Your task to perform on an android device: turn on location history Image 0: 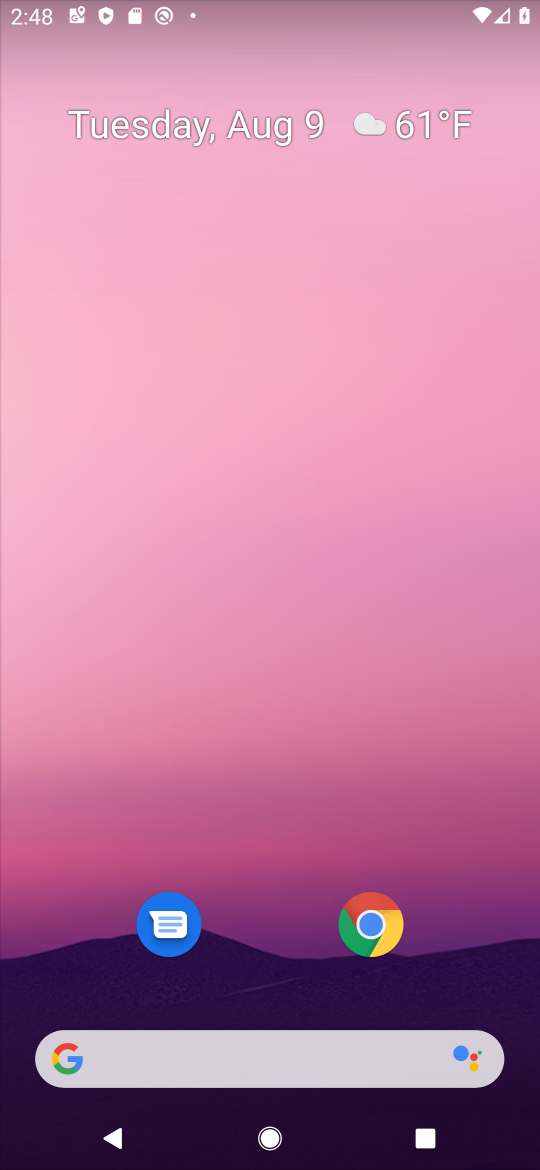
Step 0: drag from (292, 883) to (379, 36)
Your task to perform on an android device: turn on location history Image 1: 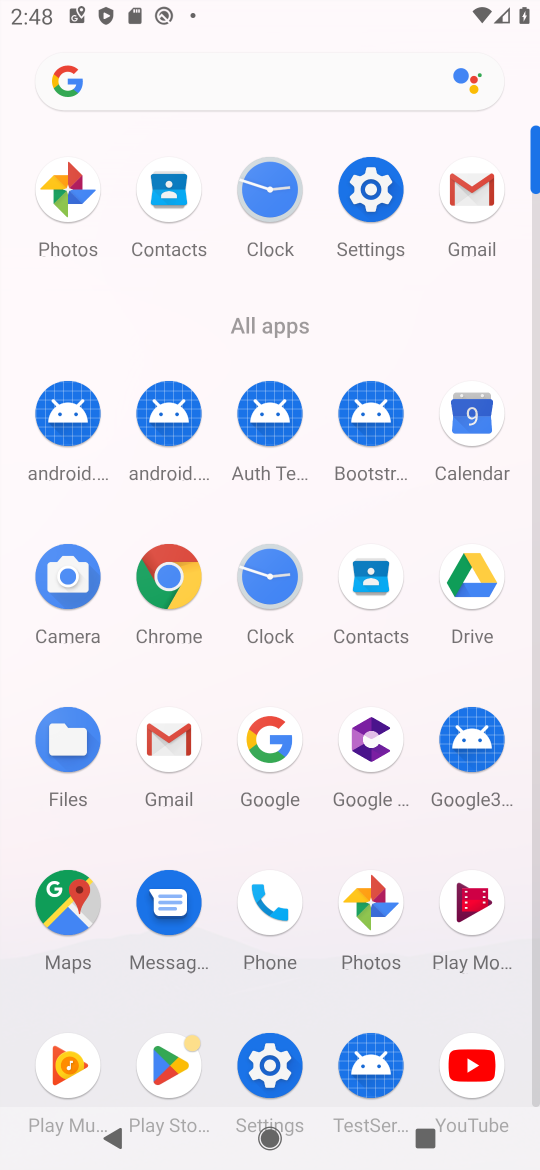
Step 1: click (373, 190)
Your task to perform on an android device: turn on location history Image 2: 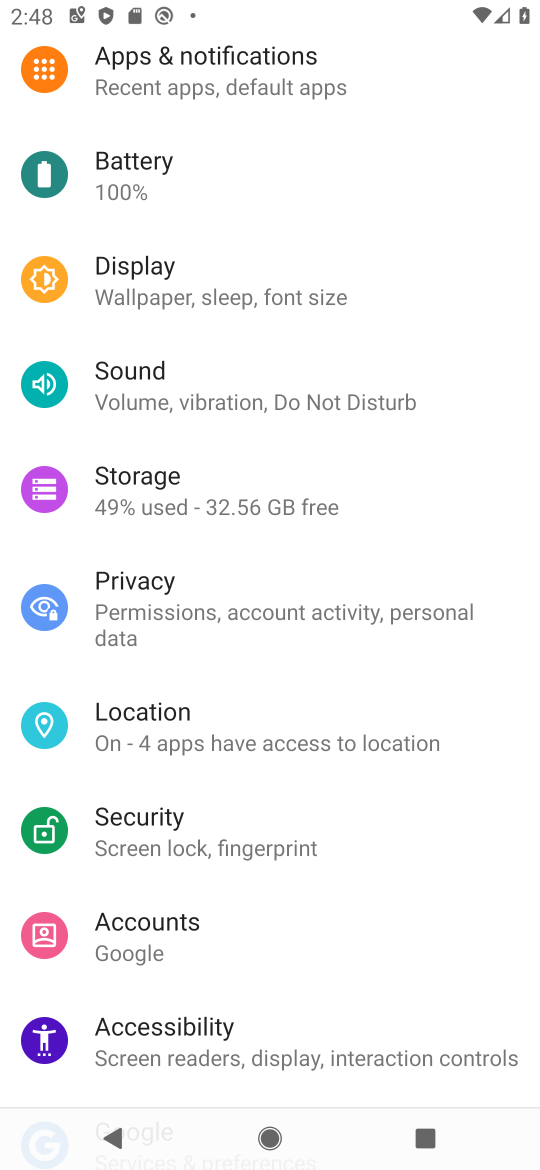
Step 2: click (287, 719)
Your task to perform on an android device: turn on location history Image 3: 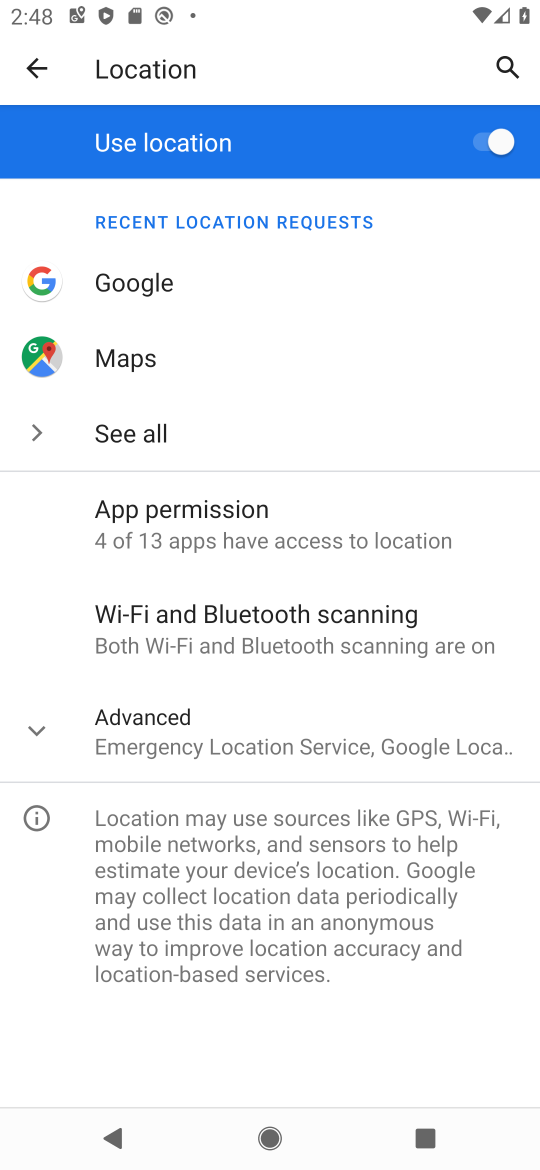
Step 3: click (34, 725)
Your task to perform on an android device: turn on location history Image 4: 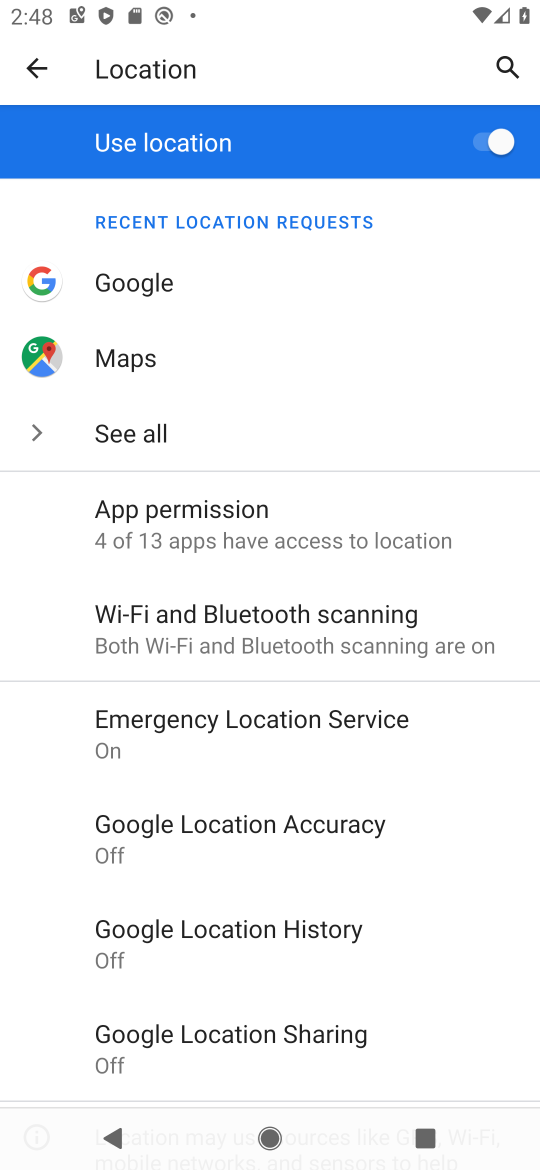
Step 4: click (267, 922)
Your task to perform on an android device: turn on location history Image 5: 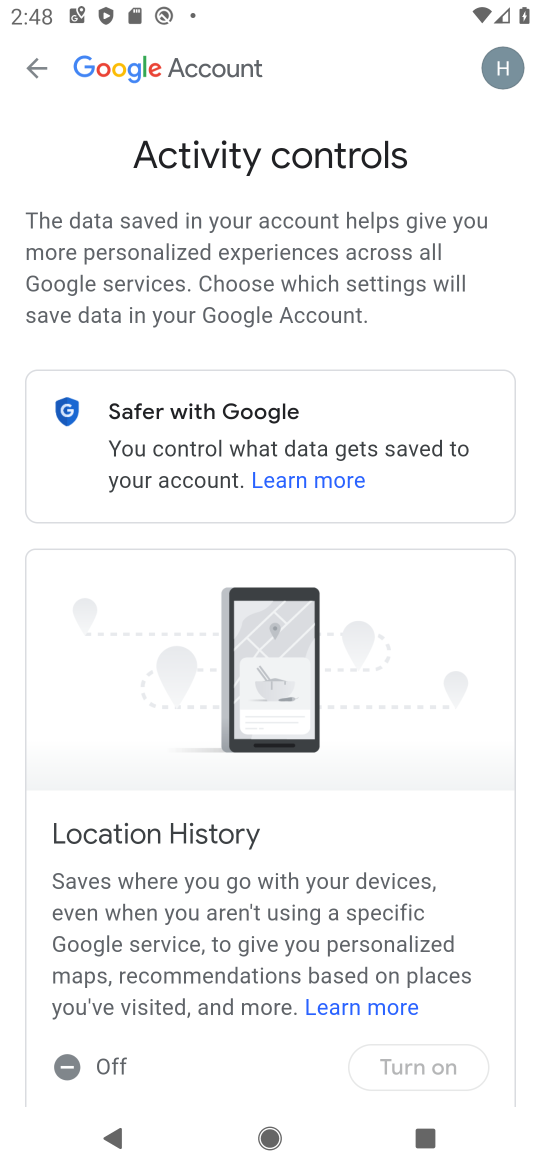
Step 5: click (424, 1063)
Your task to perform on an android device: turn on location history Image 6: 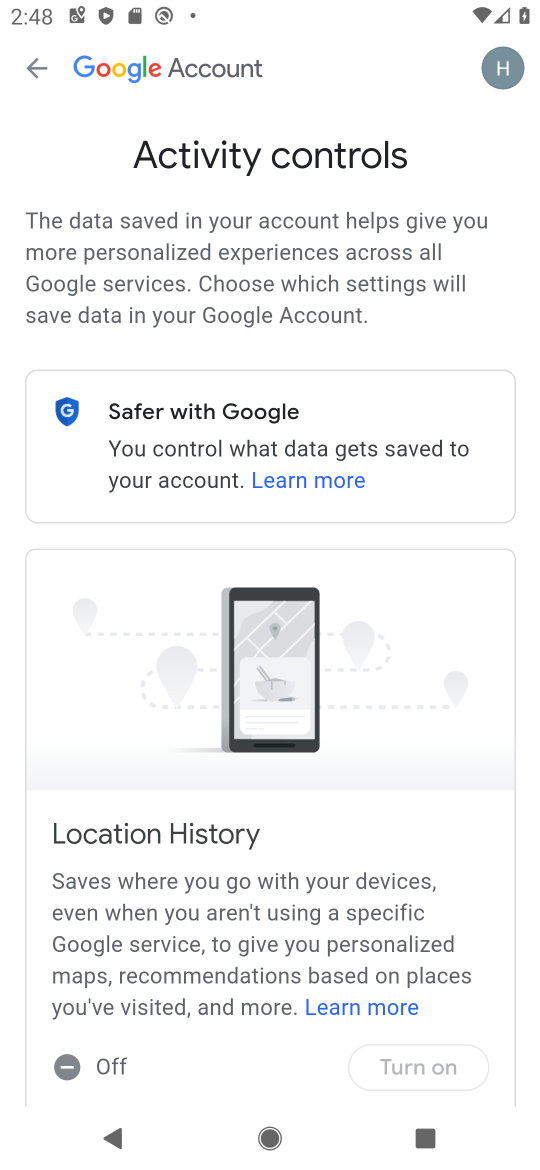
Step 6: drag from (422, 859) to (404, 502)
Your task to perform on an android device: turn on location history Image 7: 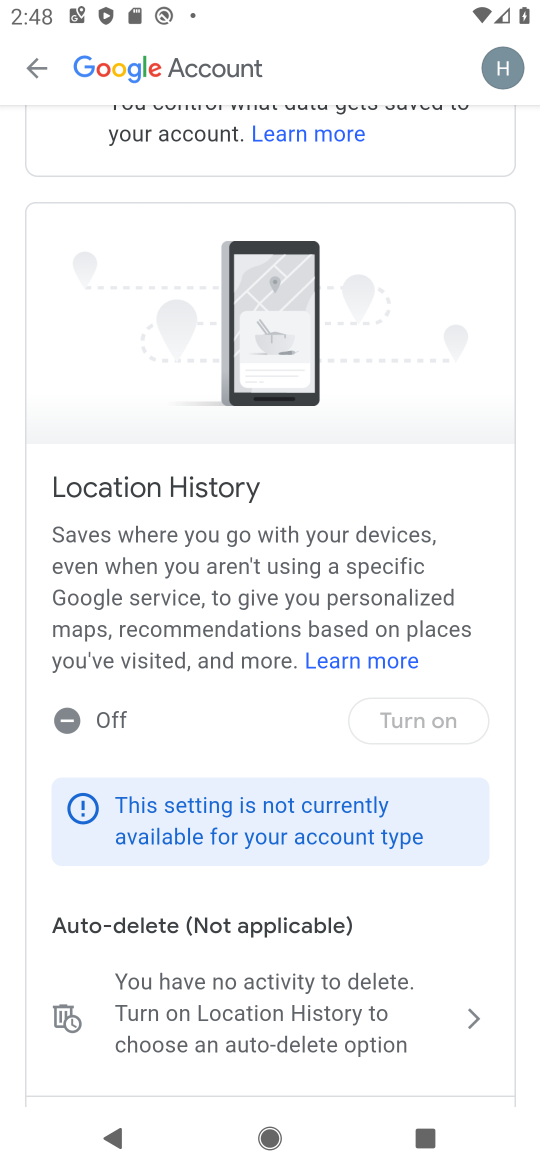
Step 7: click (424, 712)
Your task to perform on an android device: turn on location history Image 8: 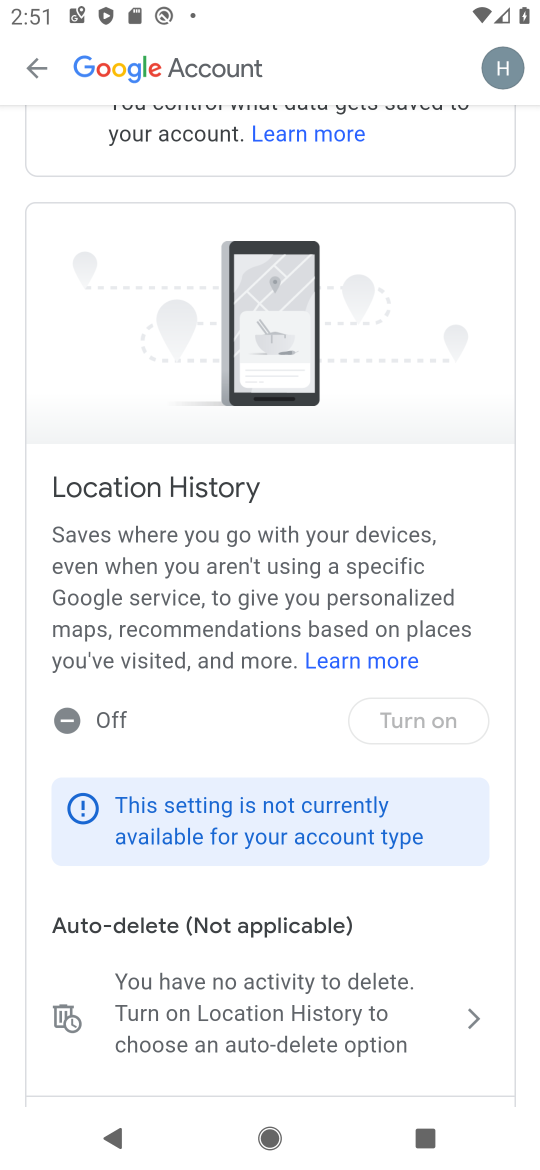
Step 8: task complete